Your task to perform on an android device: allow notifications from all sites in the chrome app Image 0: 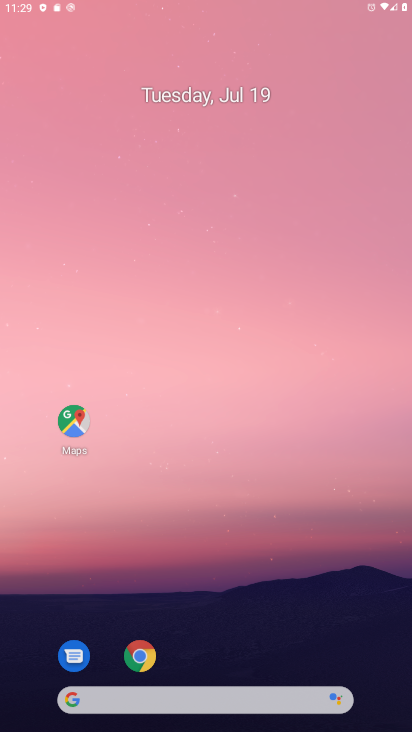
Step 0: press home button
Your task to perform on an android device: allow notifications from all sites in the chrome app Image 1: 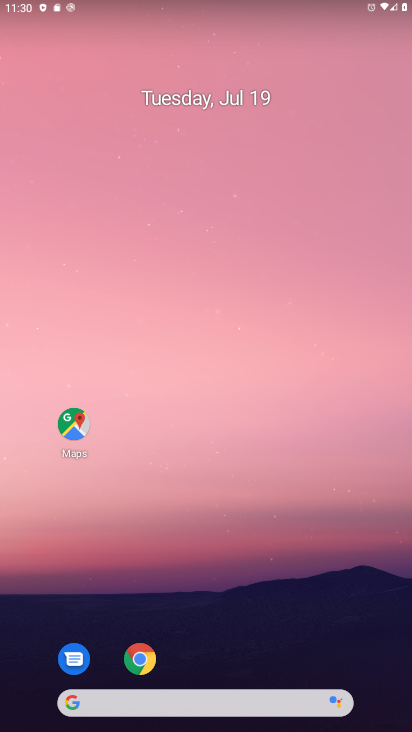
Step 1: click (137, 652)
Your task to perform on an android device: allow notifications from all sites in the chrome app Image 2: 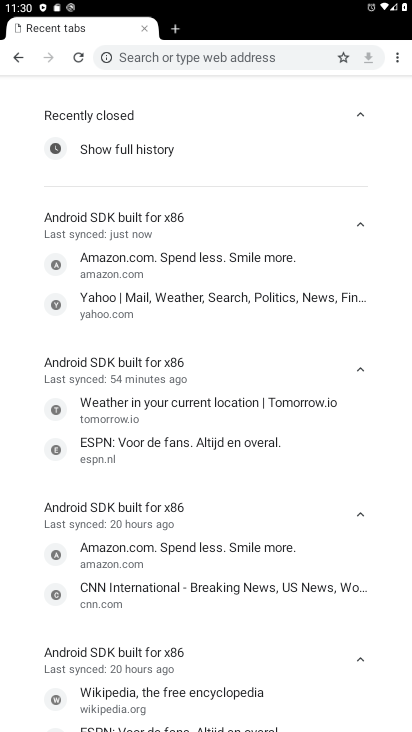
Step 2: click (395, 54)
Your task to perform on an android device: allow notifications from all sites in the chrome app Image 3: 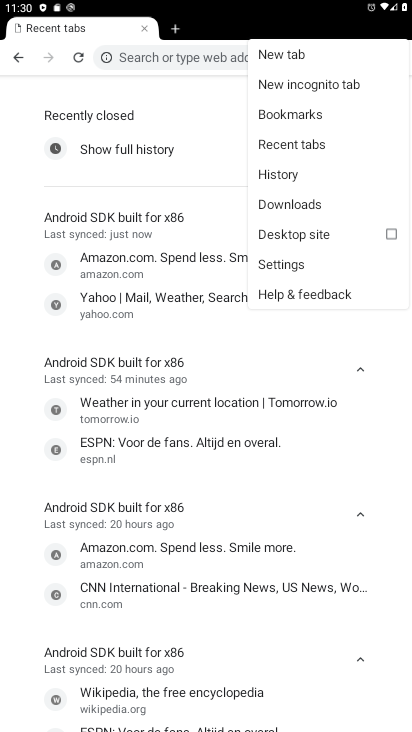
Step 3: click (310, 262)
Your task to perform on an android device: allow notifications from all sites in the chrome app Image 4: 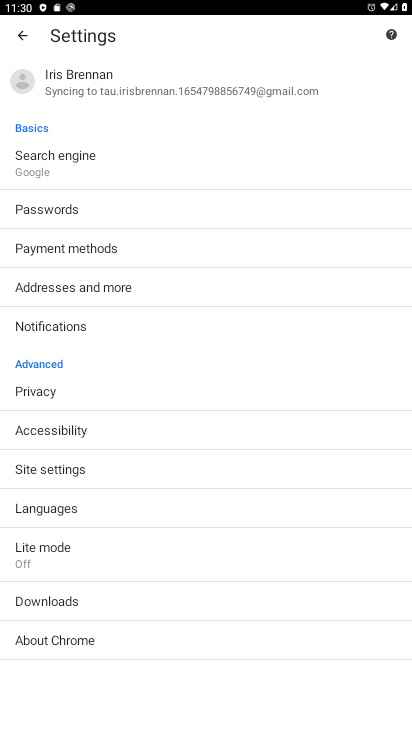
Step 4: click (93, 470)
Your task to perform on an android device: allow notifications from all sites in the chrome app Image 5: 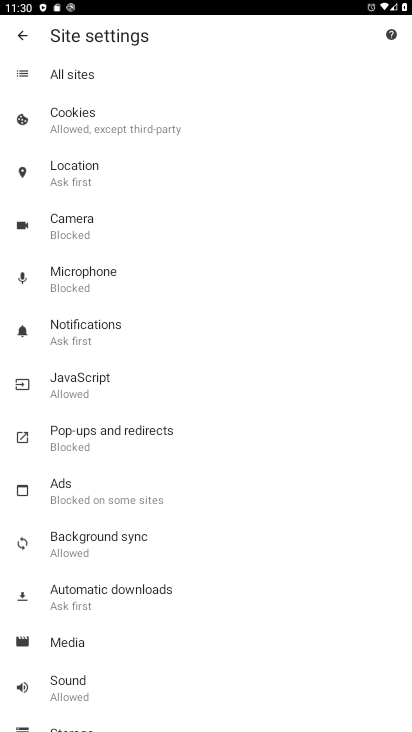
Step 5: click (102, 70)
Your task to perform on an android device: allow notifications from all sites in the chrome app Image 6: 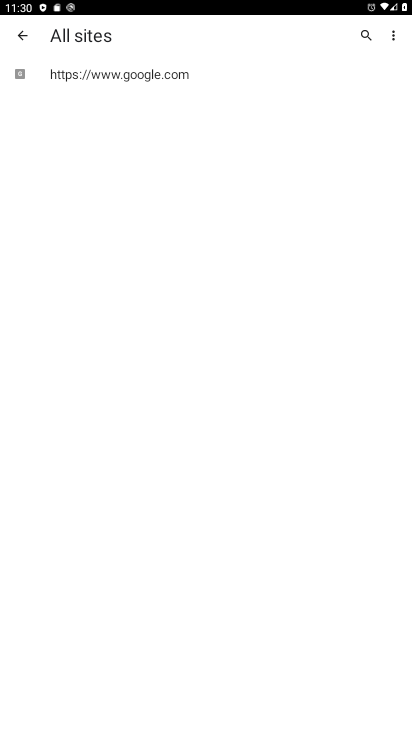
Step 6: click (205, 72)
Your task to perform on an android device: allow notifications from all sites in the chrome app Image 7: 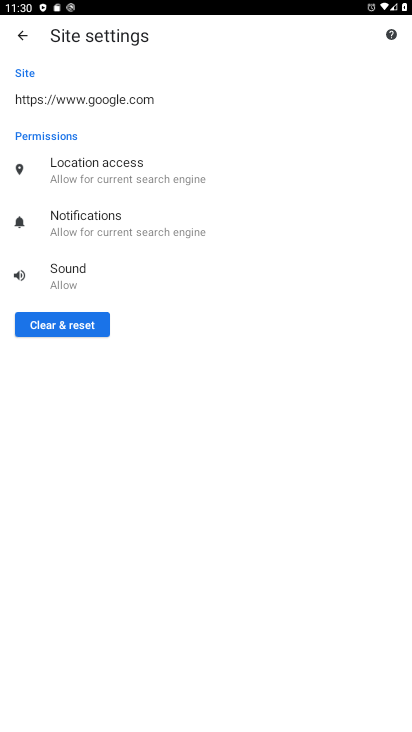
Step 7: task complete